Your task to perform on an android device: turn on translation in the chrome app Image 0: 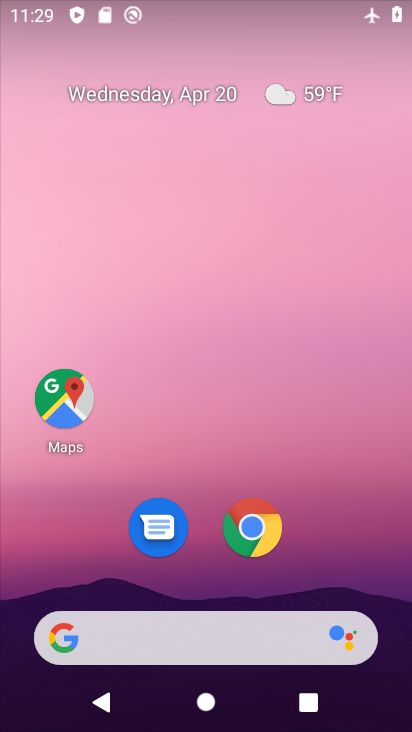
Step 0: drag from (363, 538) to (342, 167)
Your task to perform on an android device: turn on translation in the chrome app Image 1: 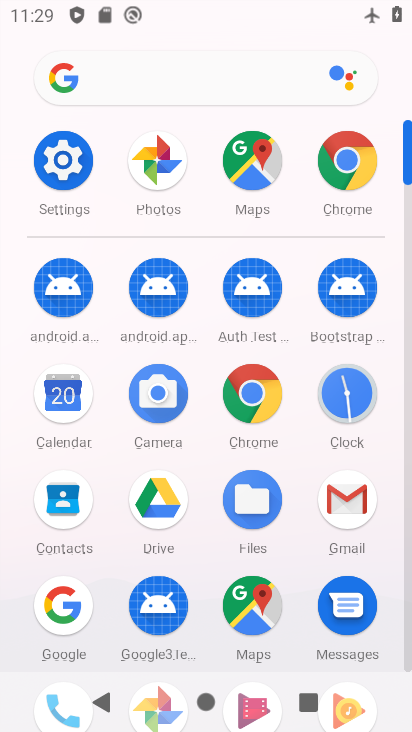
Step 1: click (245, 402)
Your task to perform on an android device: turn on translation in the chrome app Image 2: 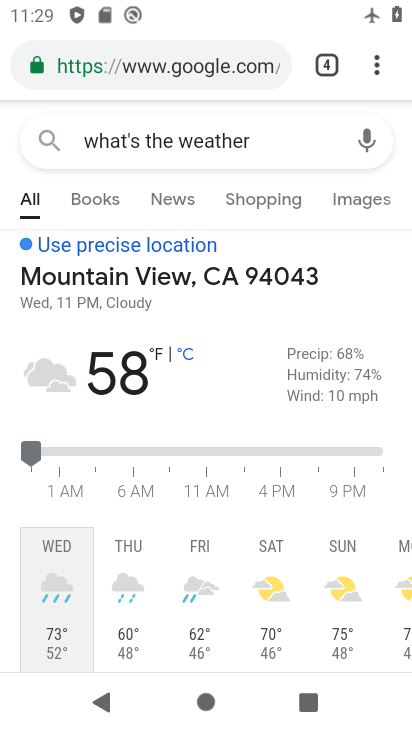
Step 2: drag from (368, 62) to (143, 585)
Your task to perform on an android device: turn on translation in the chrome app Image 3: 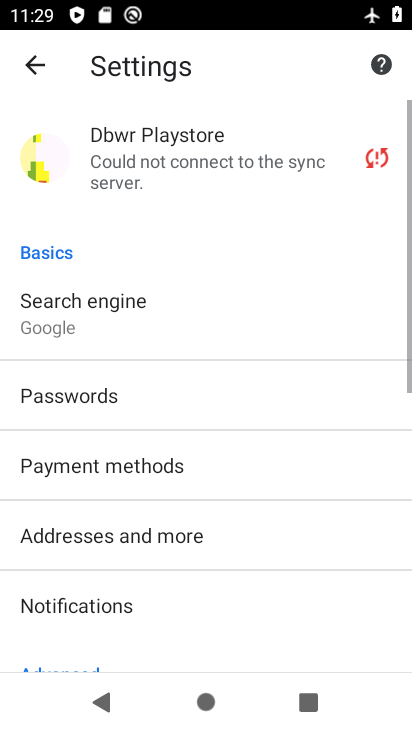
Step 3: drag from (262, 629) to (262, 277)
Your task to perform on an android device: turn on translation in the chrome app Image 4: 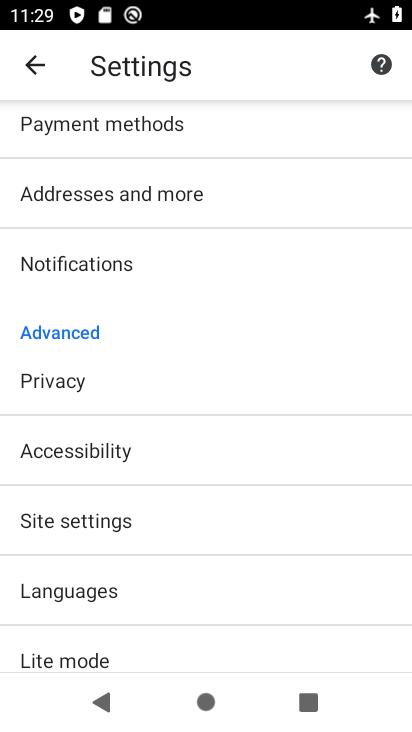
Step 4: click (185, 594)
Your task to perform on an android device: turn on translation in the chrome app Image 5: 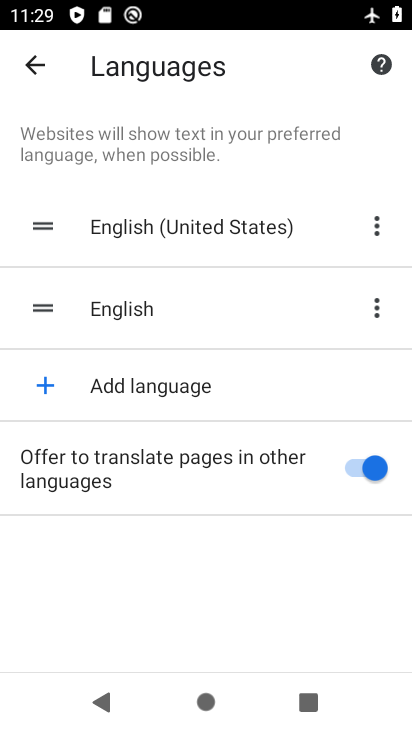
Step 5: task complete